Your task to perform on an android device: find photos in the google photos app Image 0: 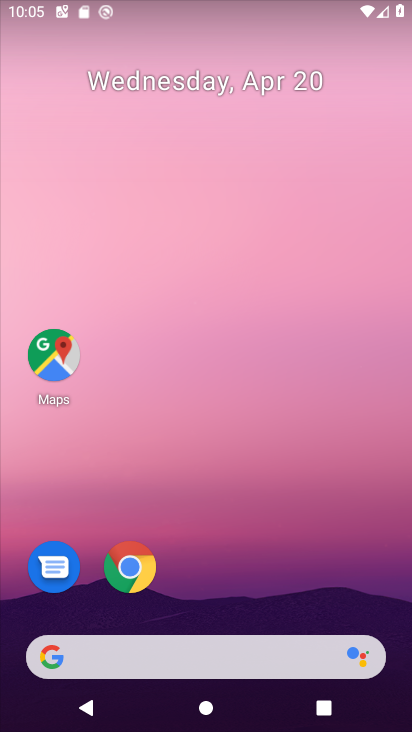
Step 0: drag from (323, 568) to (309, 197)
Your task to perform on an android device: find photos in the google photos app Image 1: 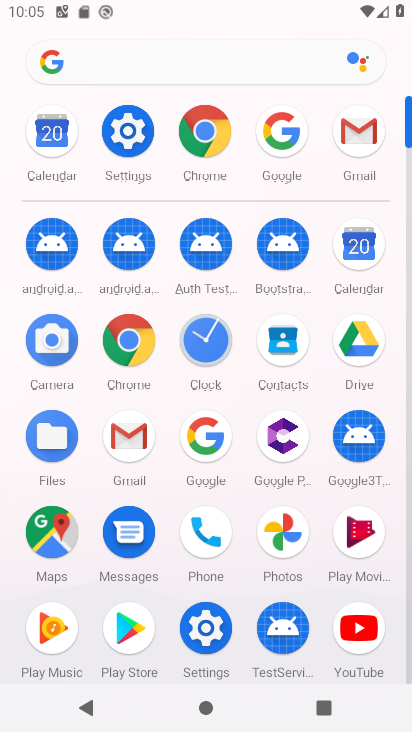
Step 1: click (292, 535)
Your task to perform on an android device: find photos in the google photos app Image 2: 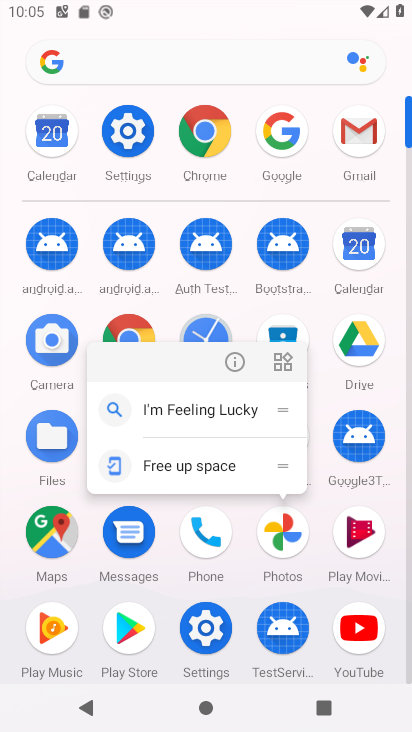
Step 2: click (272, 522)
Your task to perform on an android device: find photos in the google photos app Image 3: 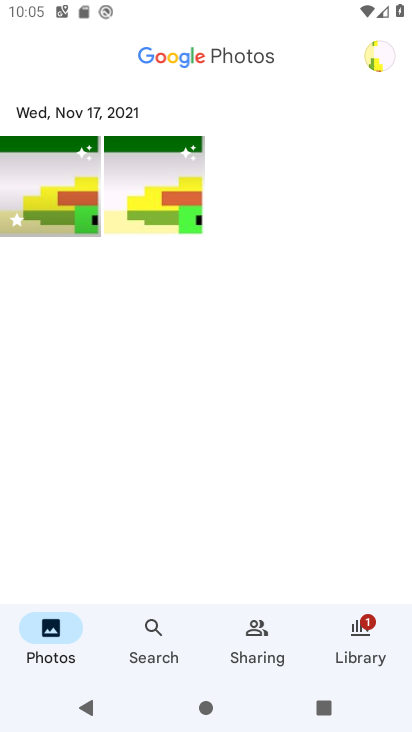
Step 3: click (140, 209)
Your task to perform on an android device: find photos in the google photos app Image 4: 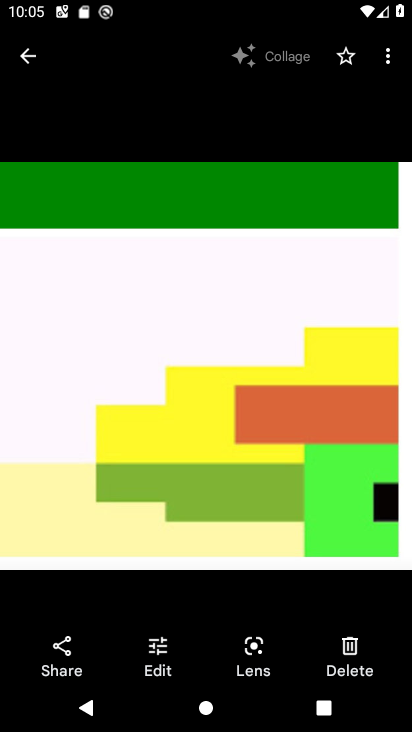
Step 4: task complete